Your task to perform on an android device: What's the US dollar exchange rate against the Canadian Dollar? Image 0: 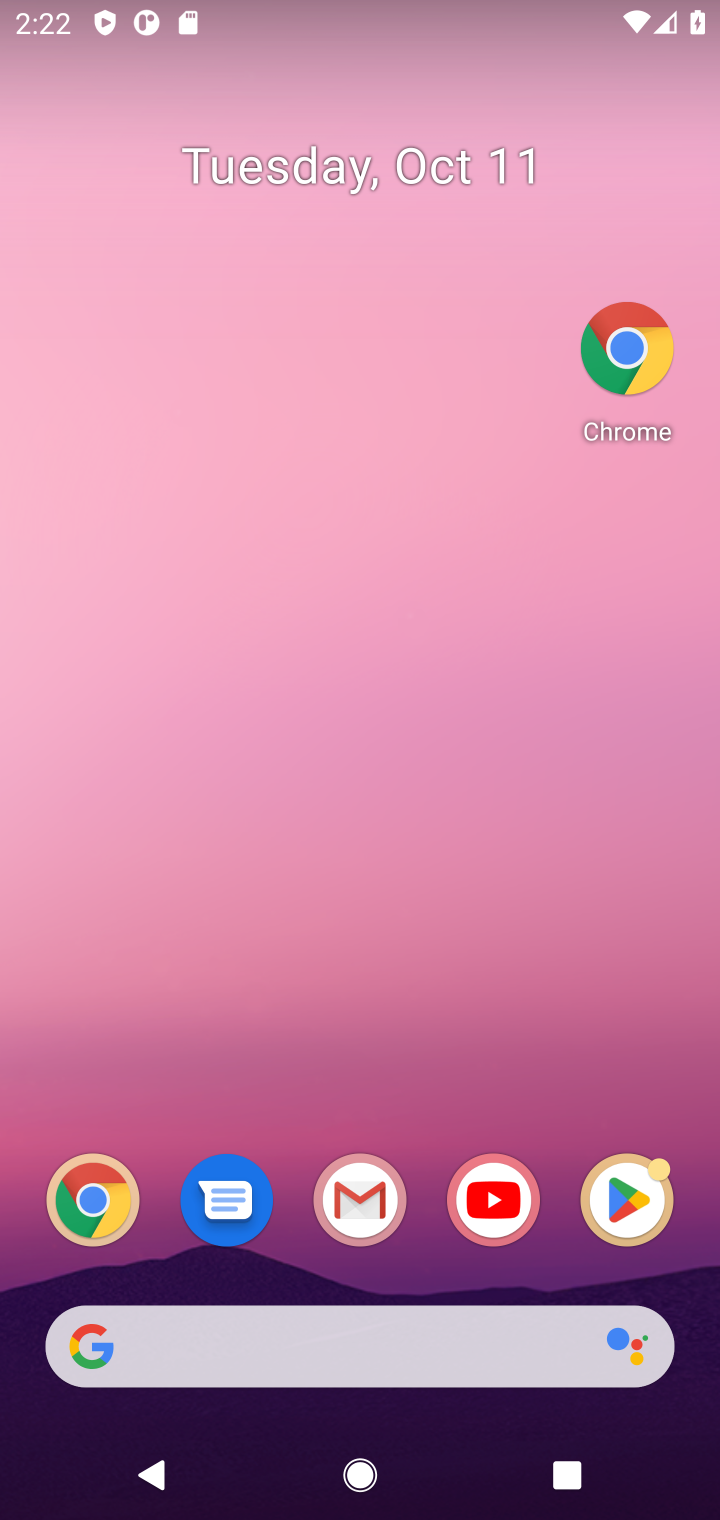
Step 0: drag from (355, 1223) to (415, 29)
Your task to perform on an android device: What's the US dollar exchange rate against the Canadian Dollar? Image 1: 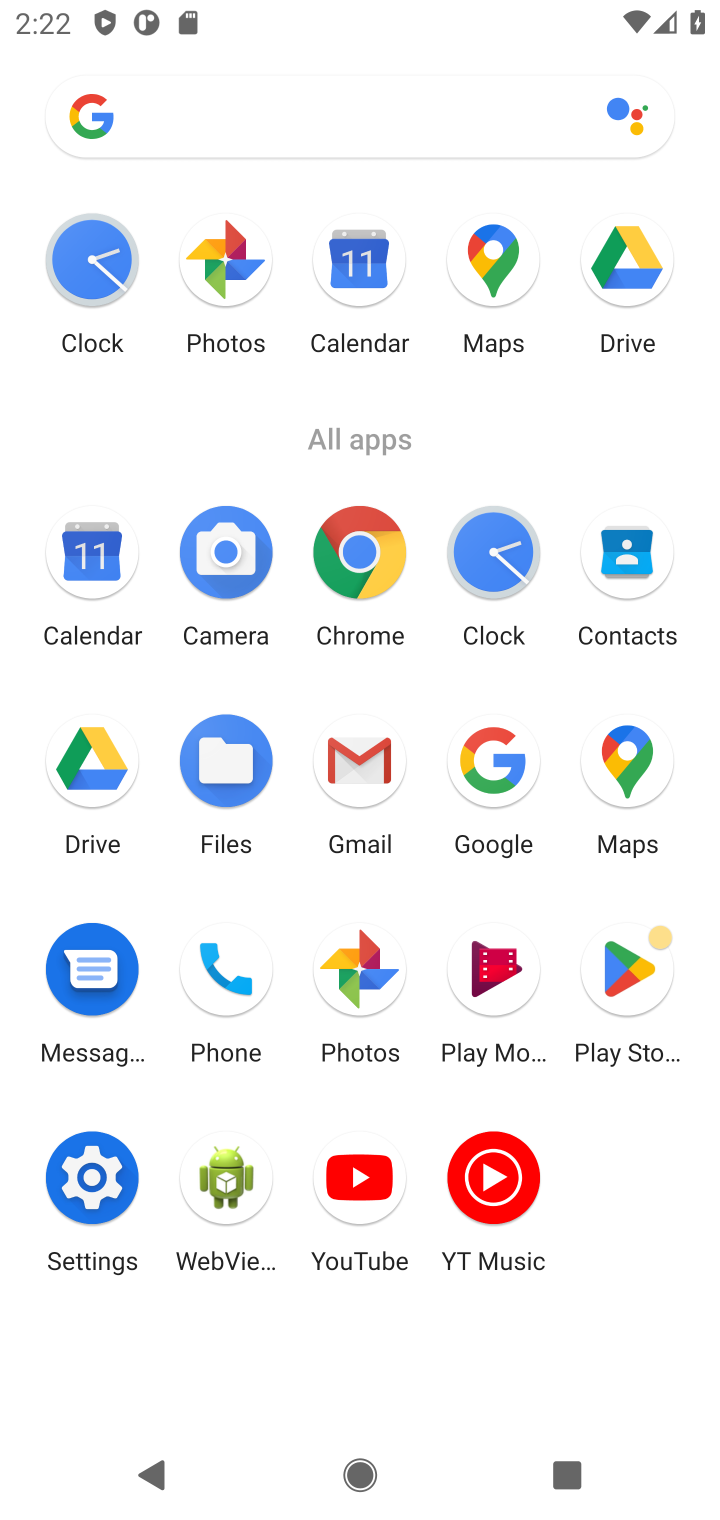
Step 1: click (359, 561)
Your task to perform on an android device: What's the US dollar exchange rate against the Canadian Dollar? Image 2: 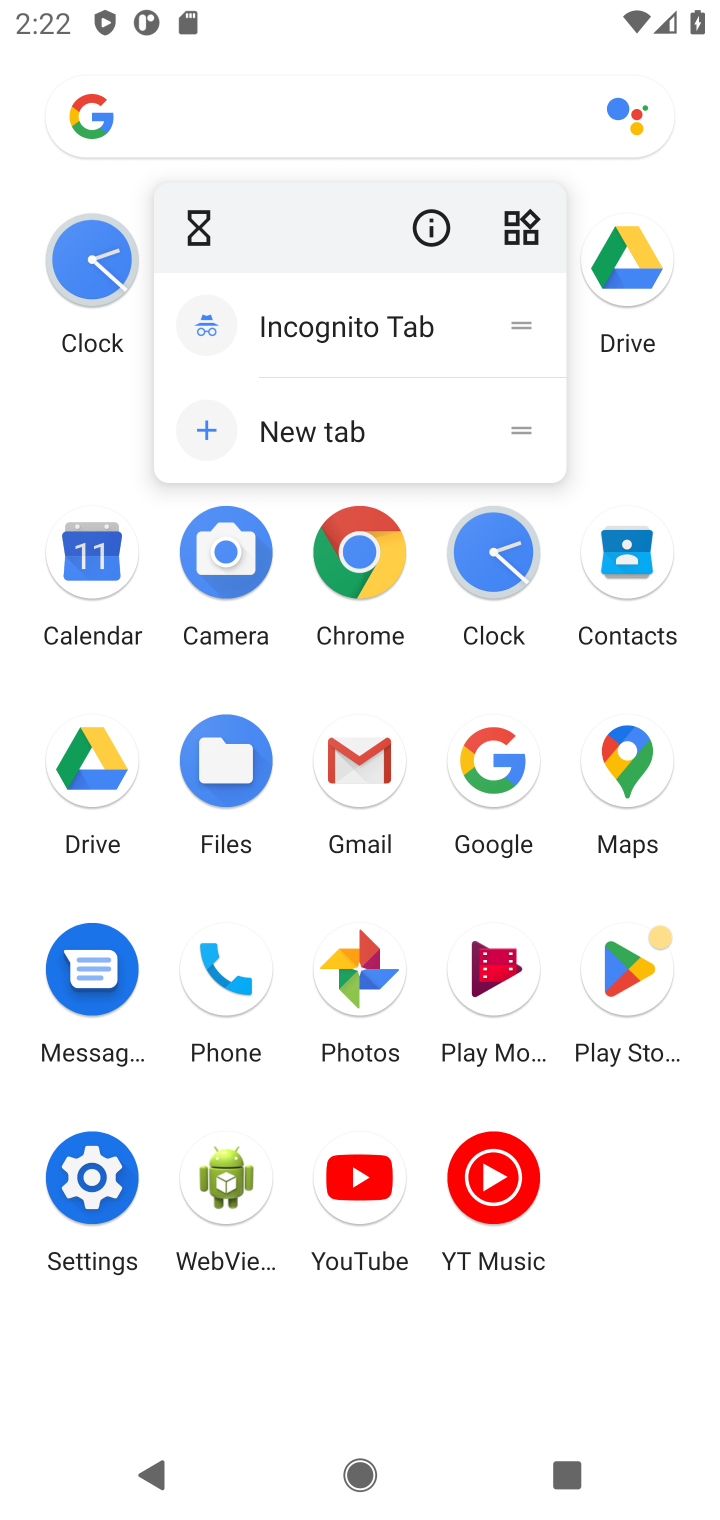
Step 2: click (359, 561)
Your task to perform on an android device: What's the US dollar exchange rate against the Canadian Dollar? Image 3: 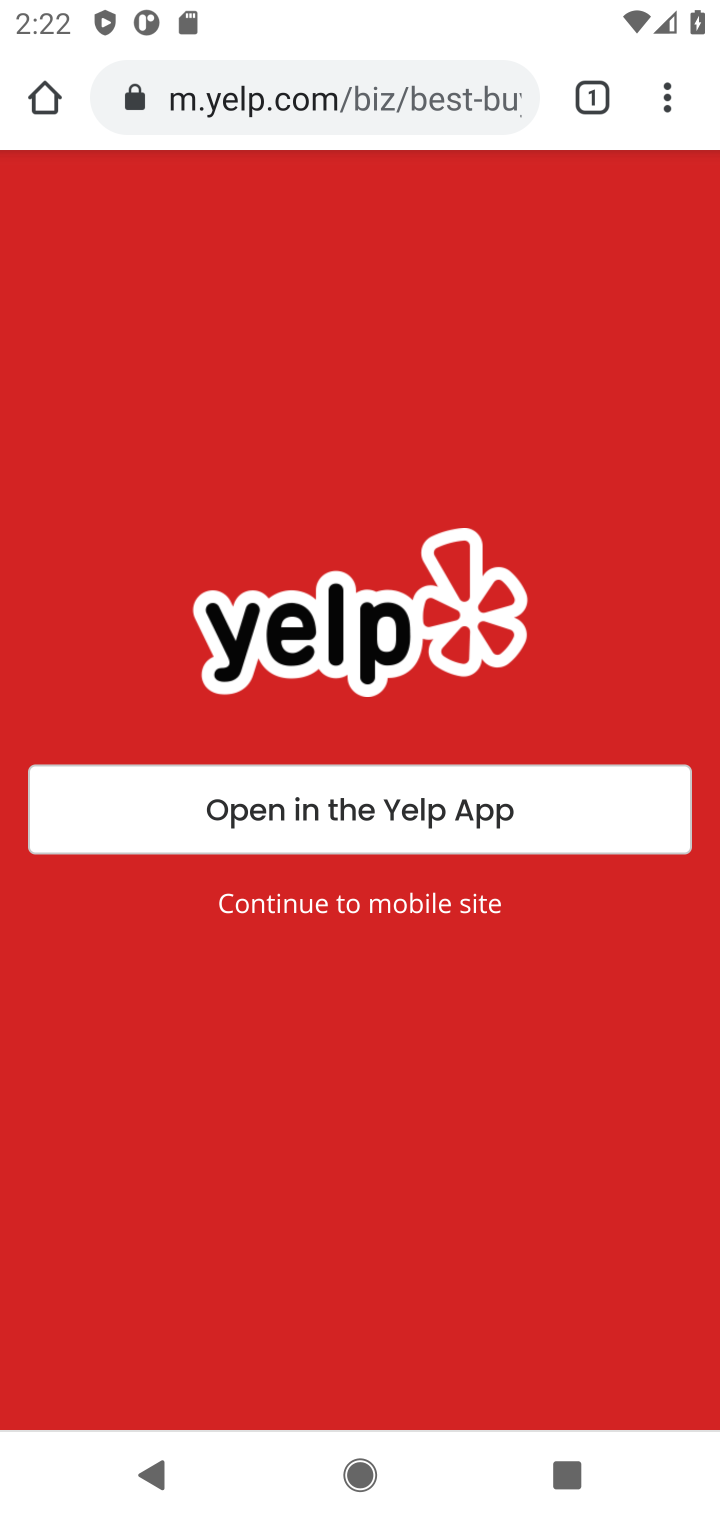
Step 3: click (350, 99)
Your task to perform on an android device: What's the US dollar exchange rate against the Canadian Dollar? Image 4: 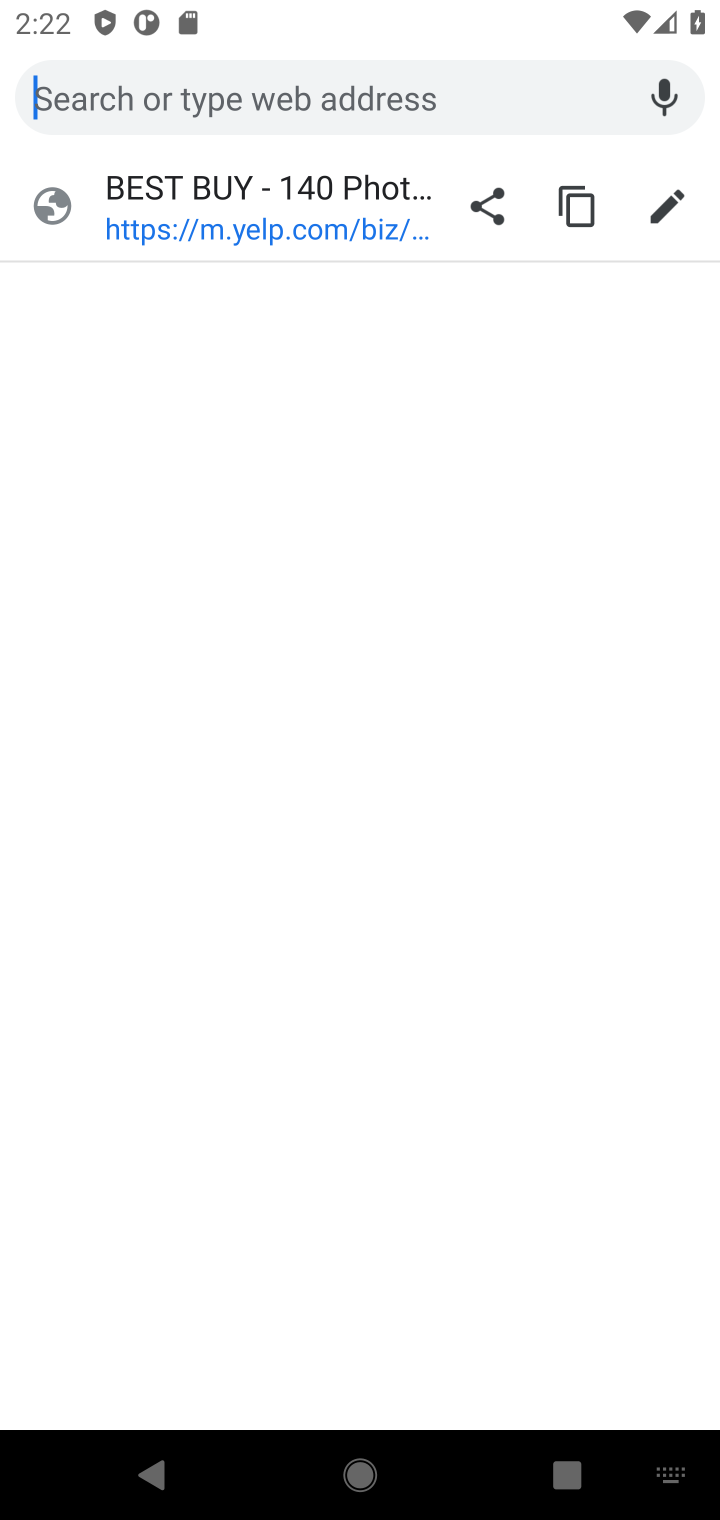
Step 4: type "What's the US dollar exchange rate against the Canadian Dollar?"
Your task to perform on an android device: What's the US dollar exchange rate against the Canadian Dollar? Image 5: 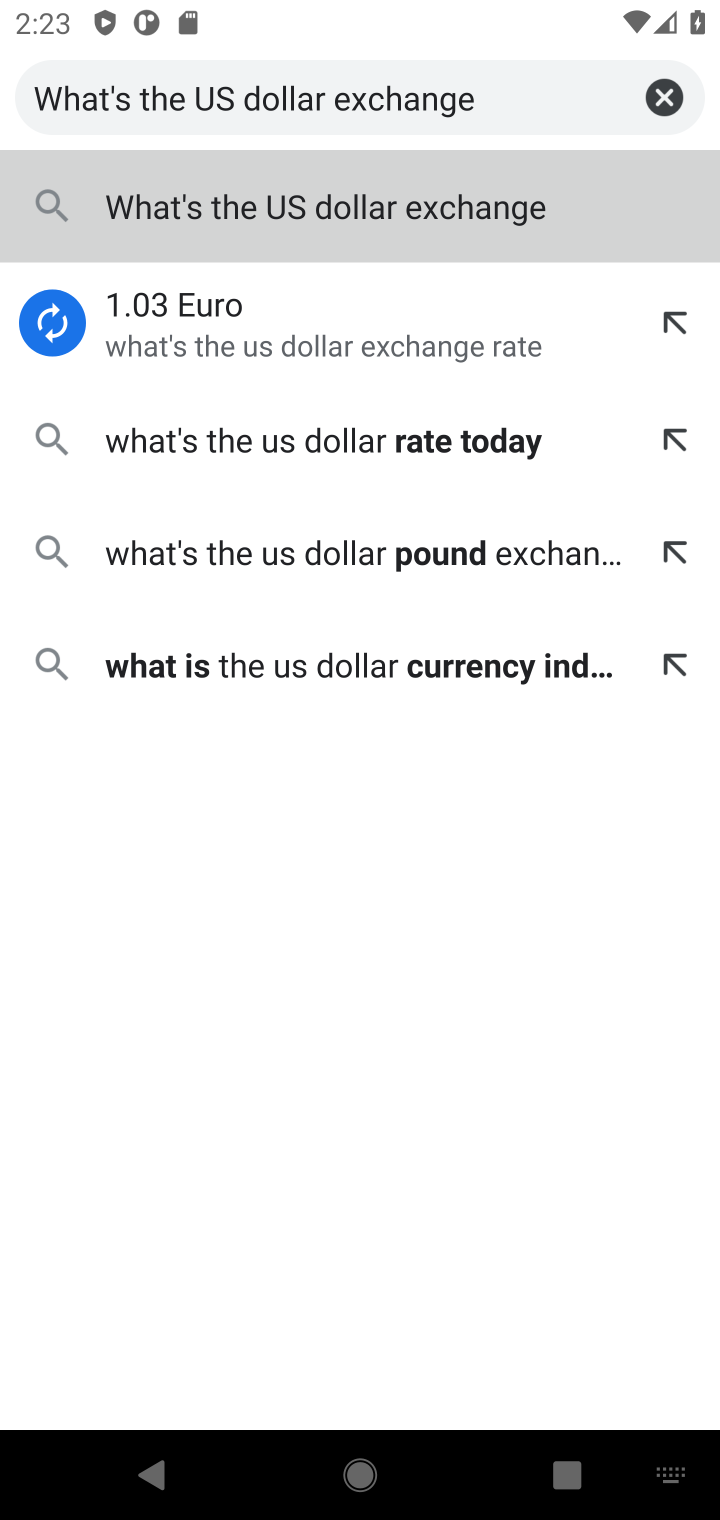
Step 5: click (657, 108)
Your task to perform on an android device: What's the US dollar exchange rate against the Canadian Dollar? Image 6: 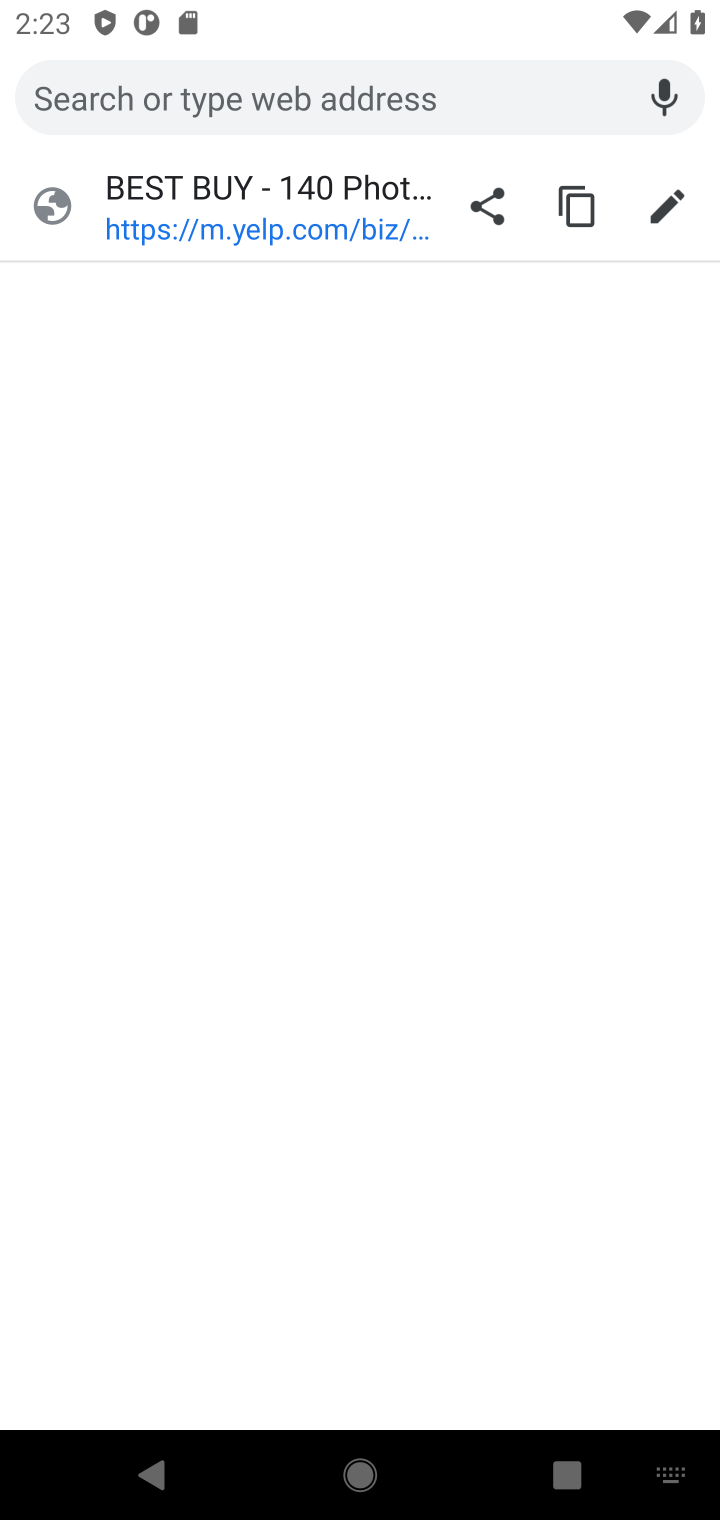
Step 6: type "What's the US dollar exchange rate against the Canadian Dollar?"
Your task to perform on an android device: What's the US dollar exchange rate against the Canadian Dollar? Image 7: 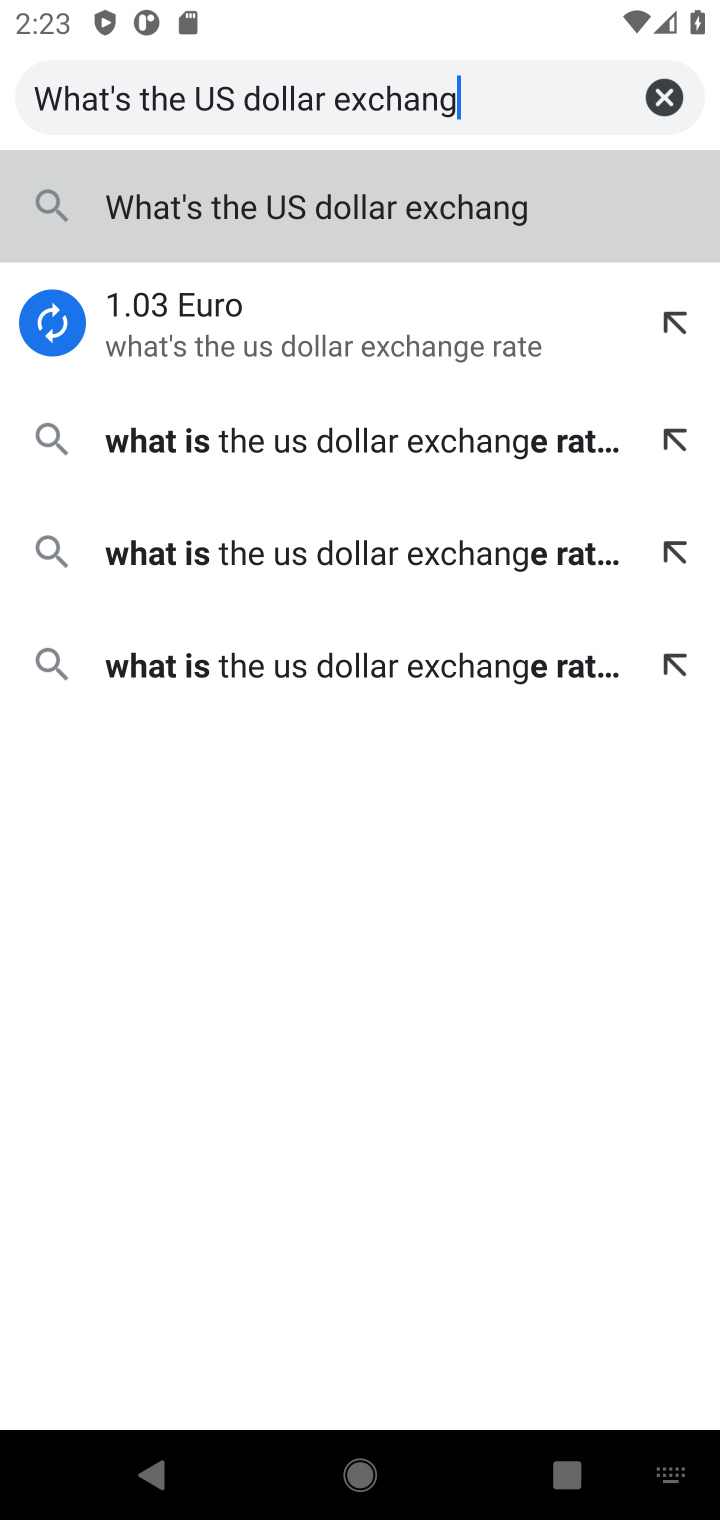
Step 7: click (649, 94)
Your task to perform on an android device: What's the US dollar exchange rate against the Canadian Dollar? Image 8: 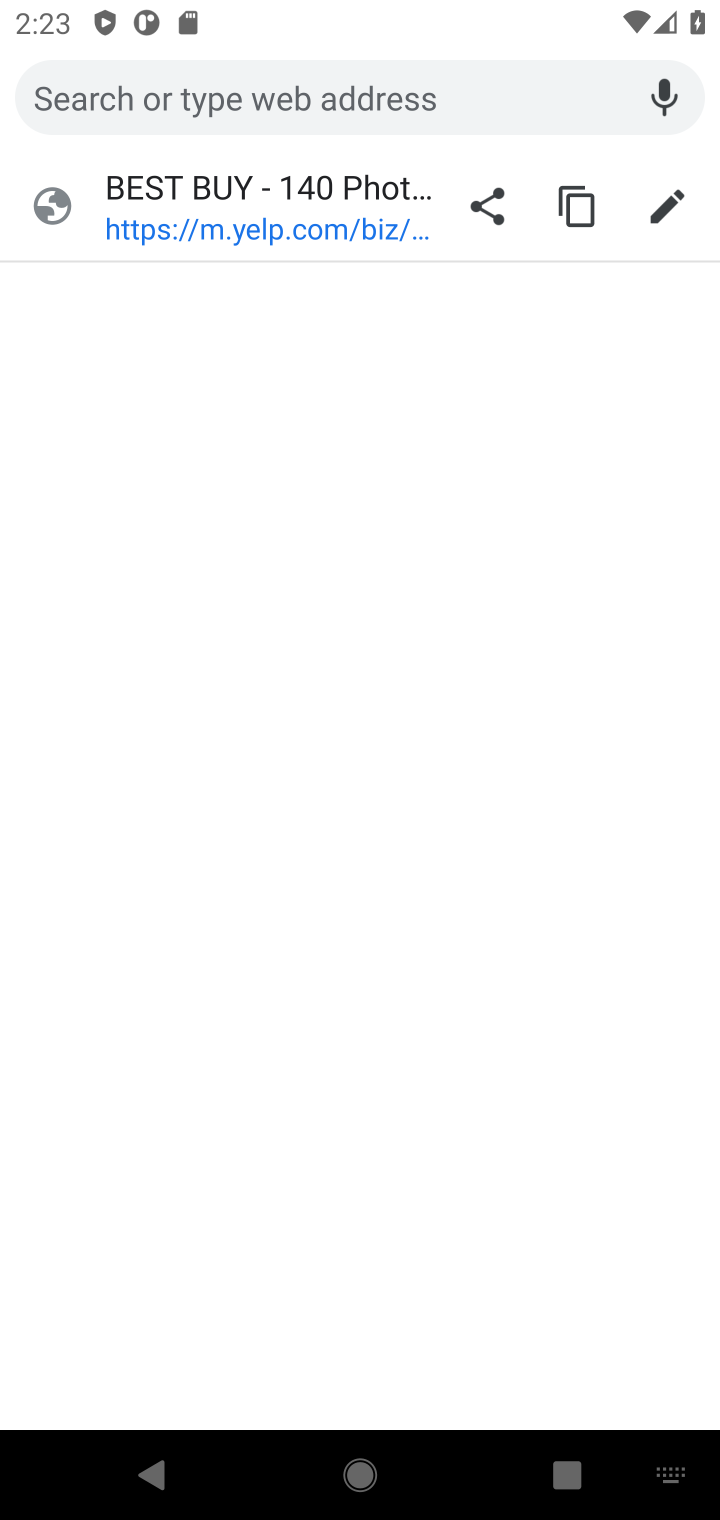
Step 8: type "What's the US dollar exchange rate against the Canadian Dollar?"
Your task to perform on an android device: What's the US dollar exchange rate against the Canadian Dollar? Image 9: 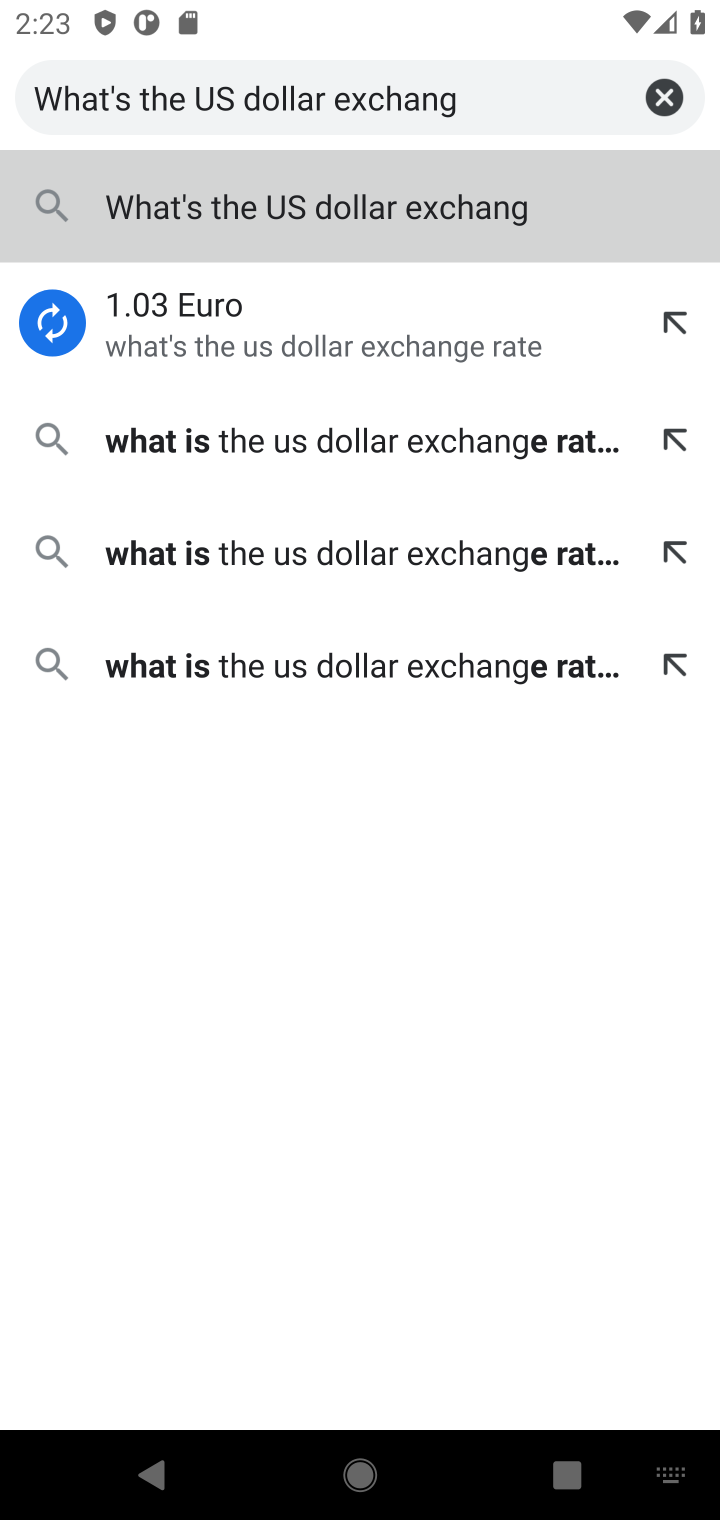
Step 9: type ""
Your task to perform on an android device: What's the US dollar exchange rate against the Canadian Dollar? Image 10: 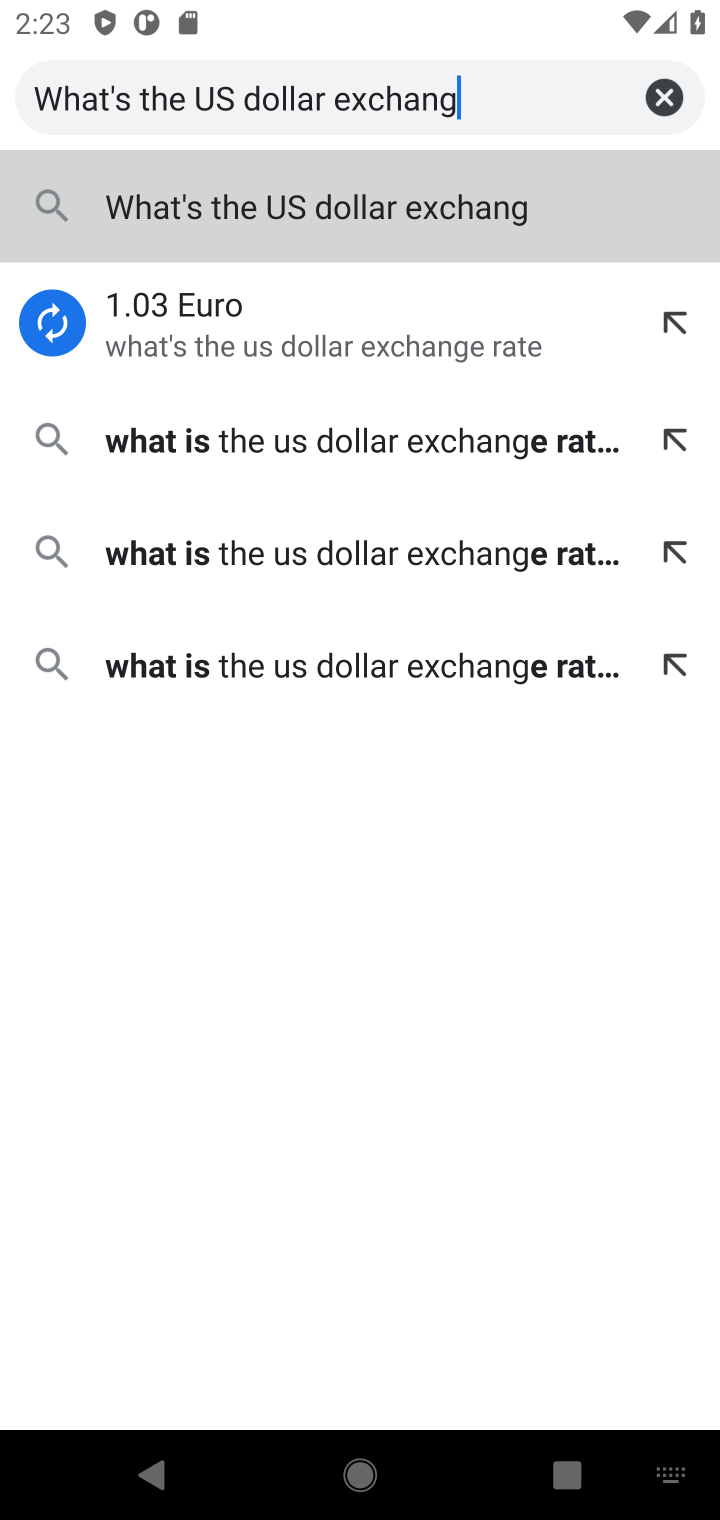
Step 10: press enter
Your task to perform on an android device: What's the US dollar exchange rate against the Canadian Dollar? Image 11: 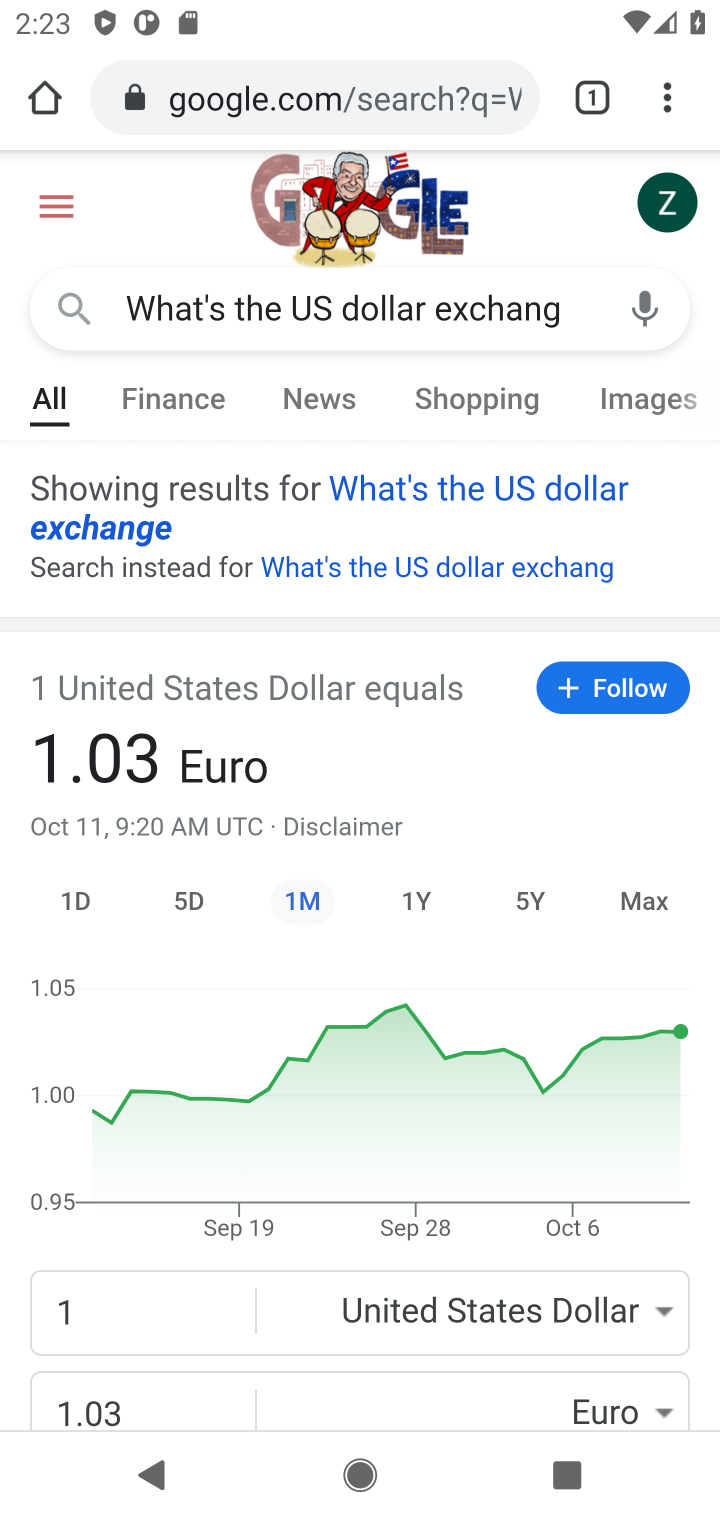
Step 11: drag from (550, 982) to (568, 178)
Your task to perform on an android device: What's the US dollar exchange rate against the Canadian Dollar? Image 12: 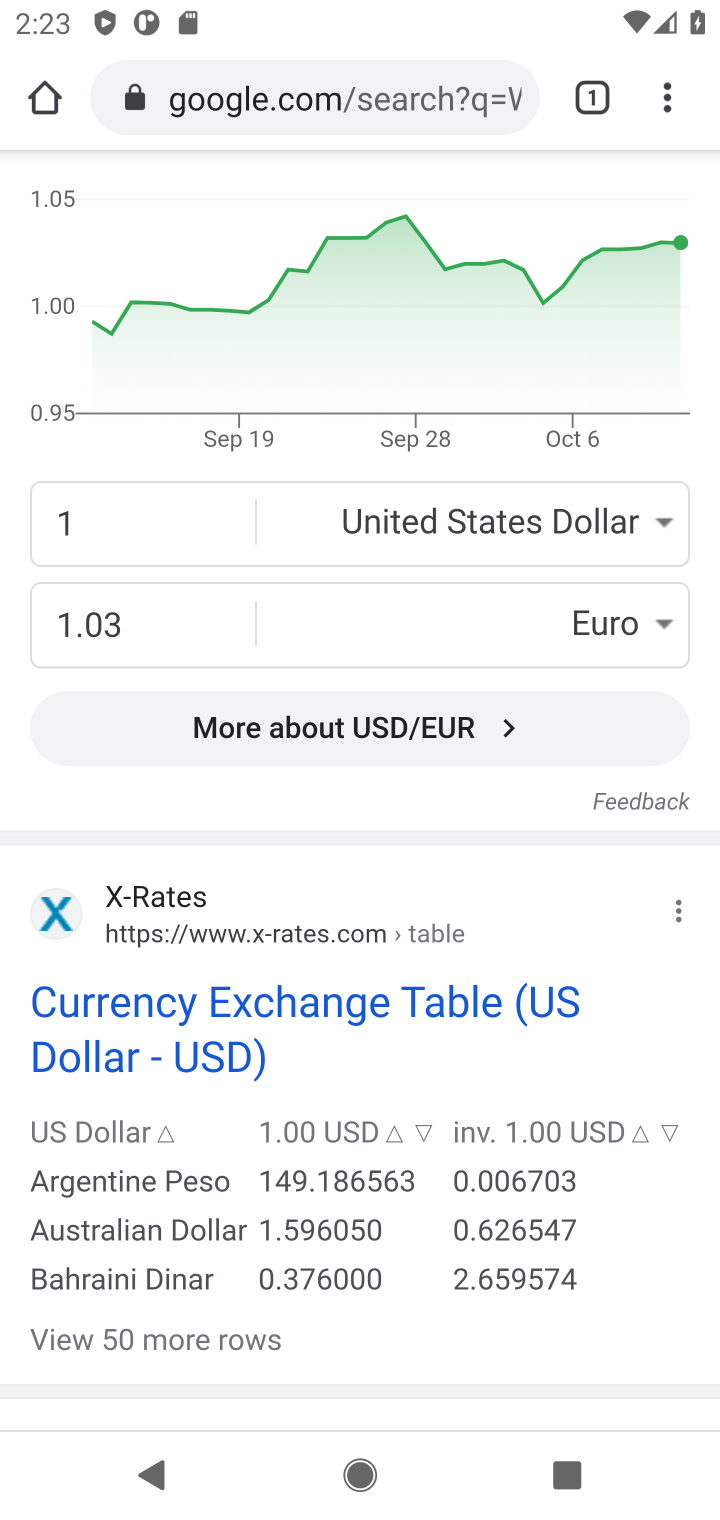
Step 12: click (508, 518)
Your task to perform on an android device: What's the US dollar exchange rate against the Canadian Dollar? Image 13: 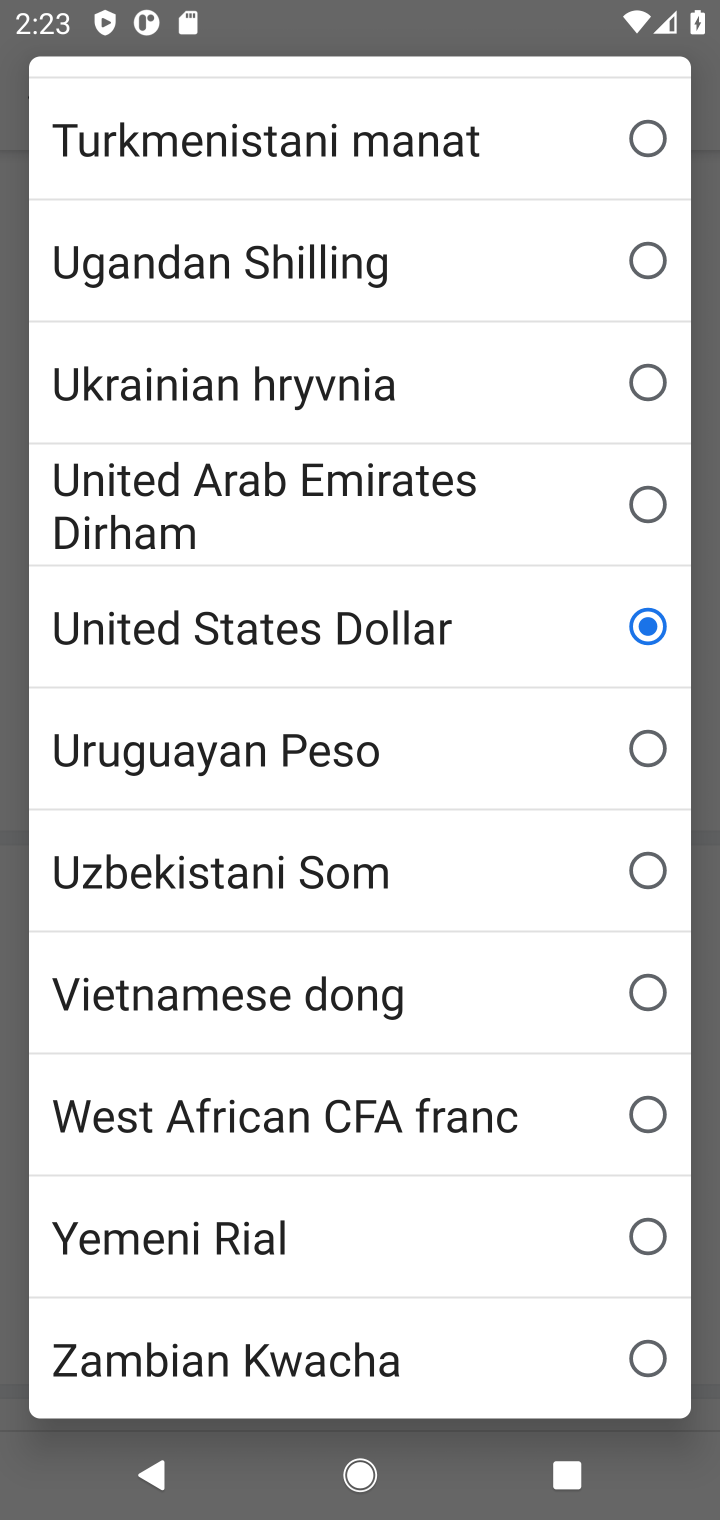
Step 13: click (565, 614)
Your task to perform on an android device: What's the US dollar exchange rate against the Canadian Dollar? Image 14: 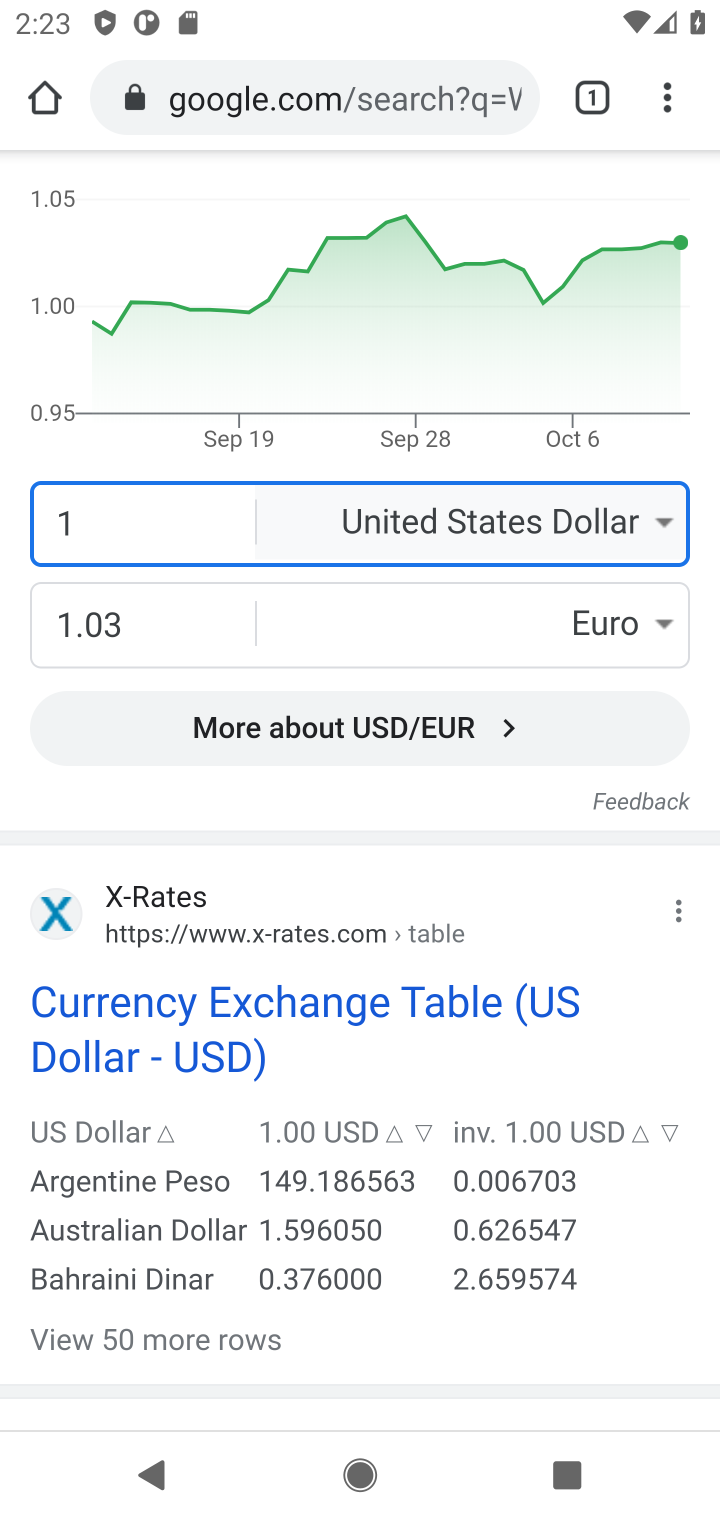
Step 14: click (580, 642)
Your task to perform on an android device: What's the US dollar exchange rate against the Canadian Dollar? Image 15: 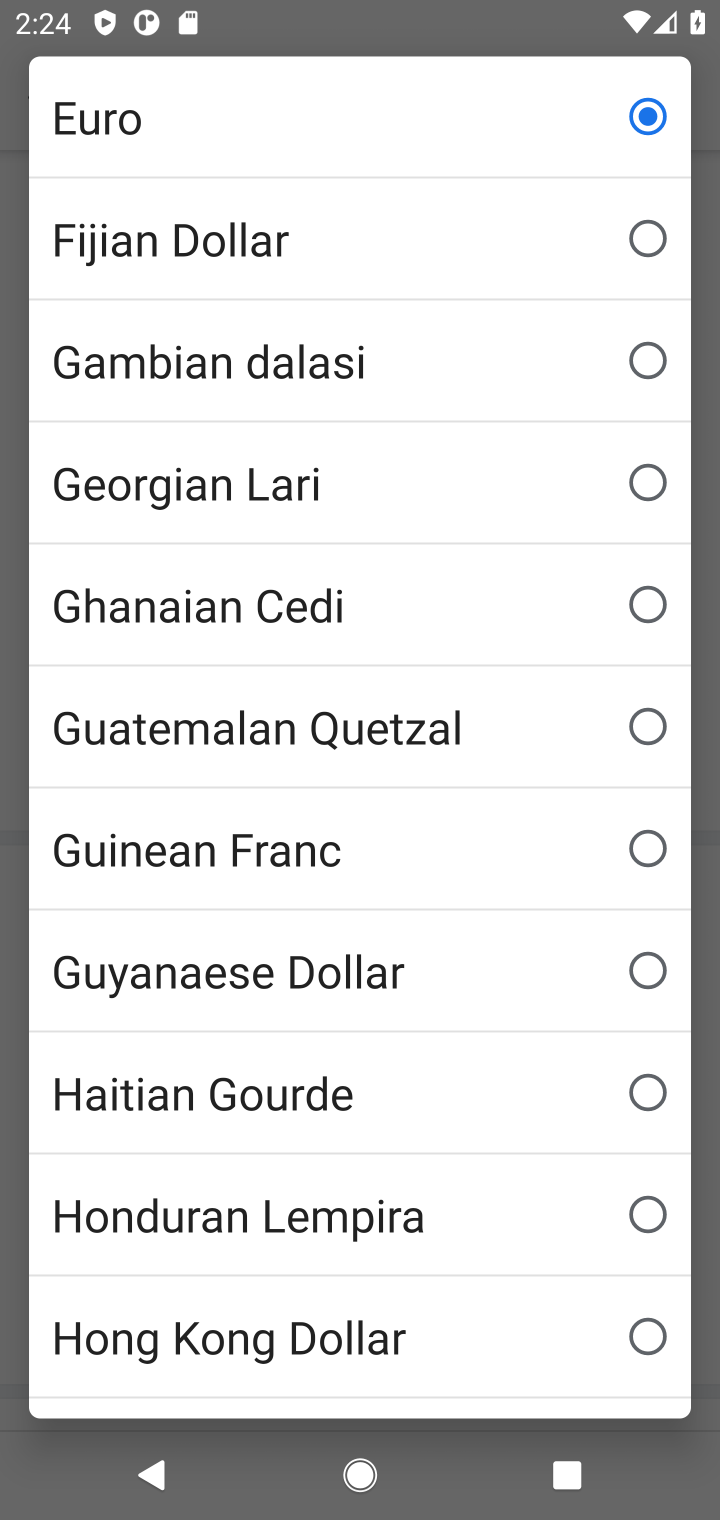
Step 15: drag from (448, 1301) to (534, 1444)
Your task to perform on an android device: What's the US dollar exchange rate against the Canadian Dollar? Image 16: 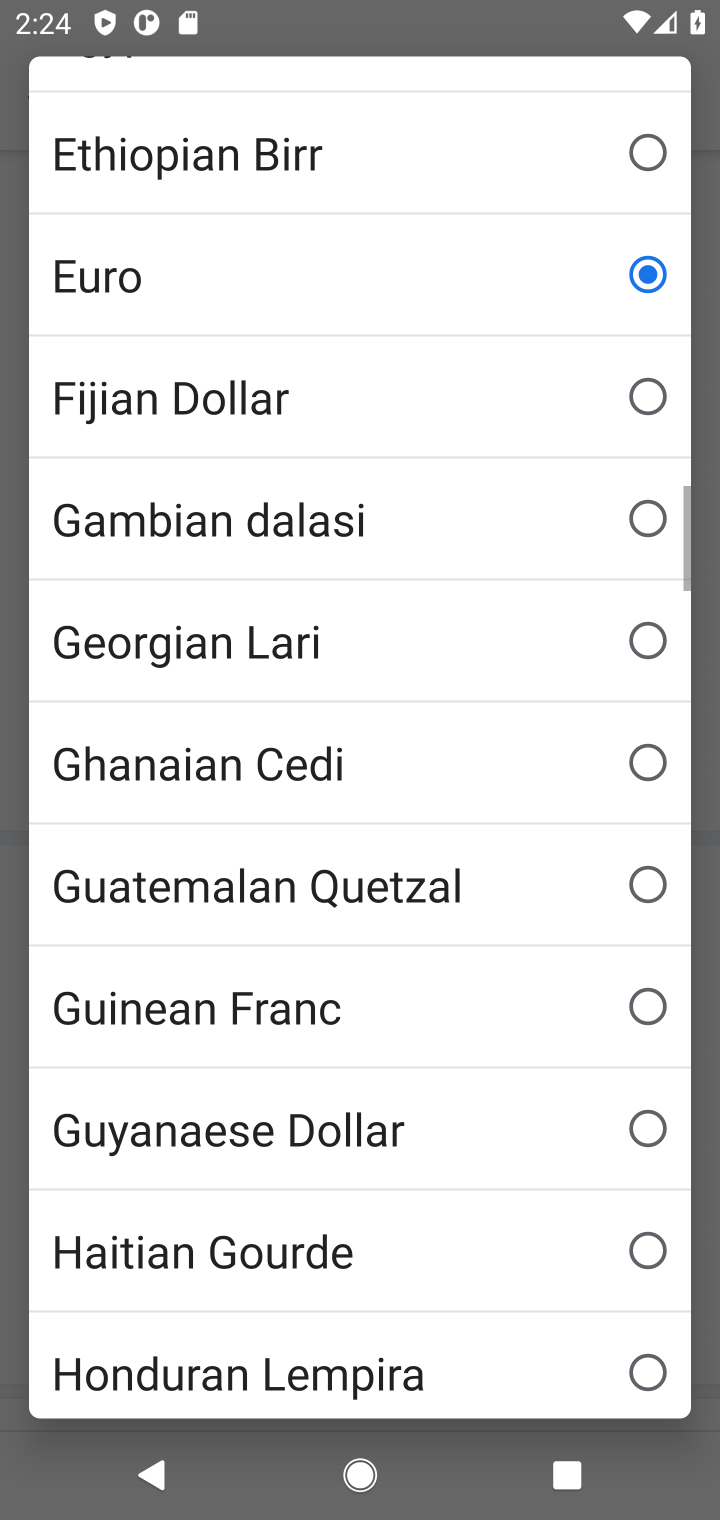
Step 16: drag from (454, 548) to (508, 1176)
Your task to perform on an android device: What's the US dollar exchange rate against the Canadian Dollar? Image 17: 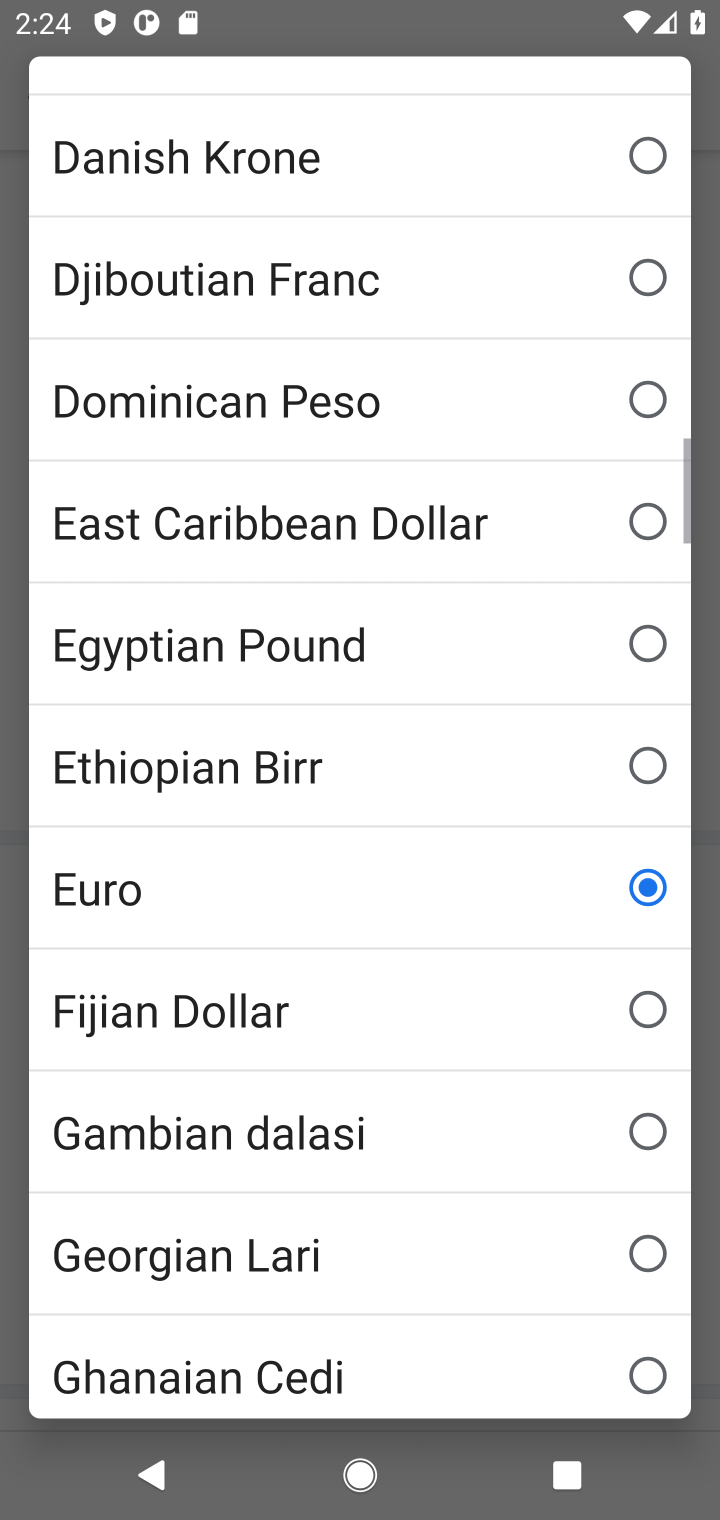
Step 17: drag from (374, 926) to (388, 1210)
Your task to perform on an android device: What's the US dollar exchange rate against the Canadian Dollar? Image 18: 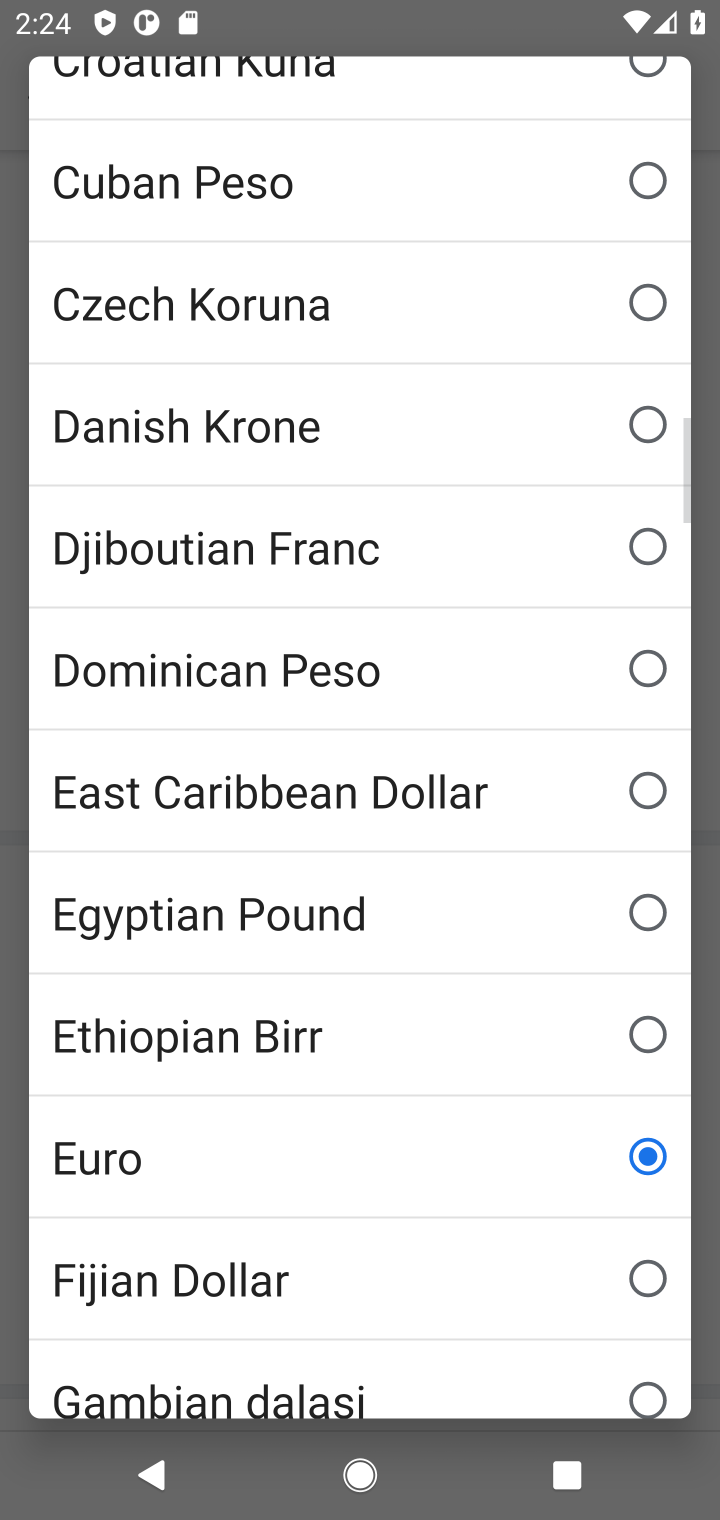
Step 18: drag from (364, 281) to (427, 1202)
Your task to perform on an android device: What's the US dollar exchange rate against the Canadian Dollar? Image 19: 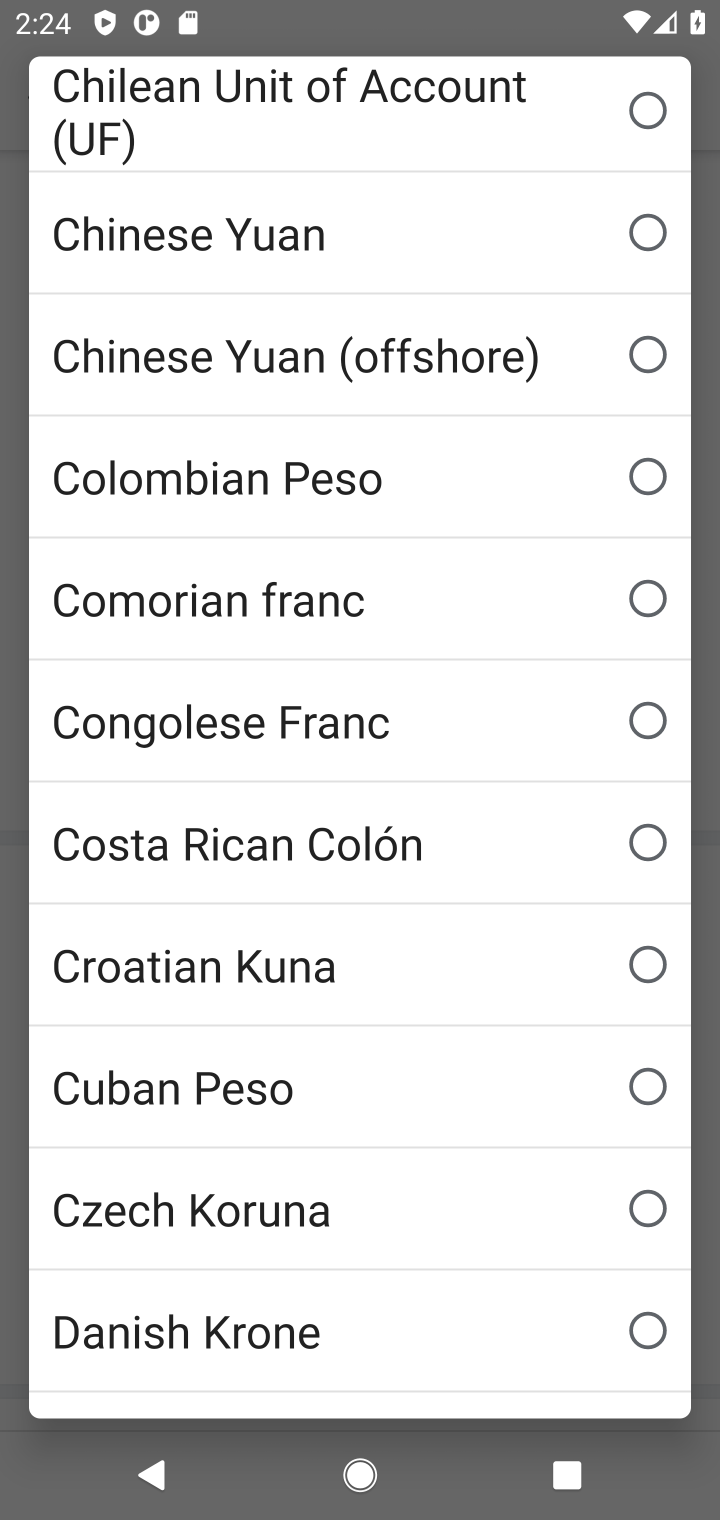
Step 19: drag from (422, 162) to (449, 1115)
Your task to perform on an android device: What's the US dollar exchange rate against the Canadian Dollar? Image 20: 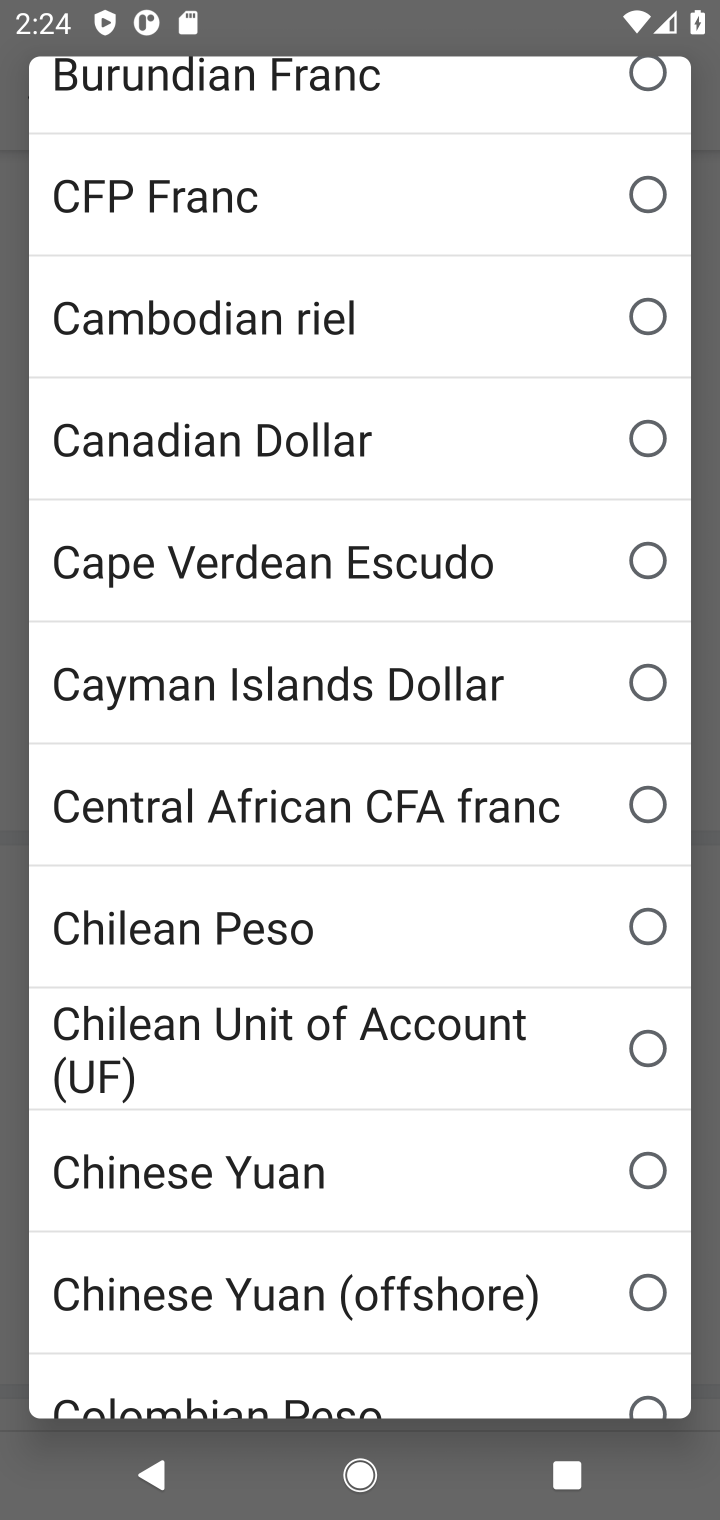
Step 20: click (423, 413)
Your task to perform on an android device: What's the US dollar exchange rate against the Canadian Dollar? Image 21: 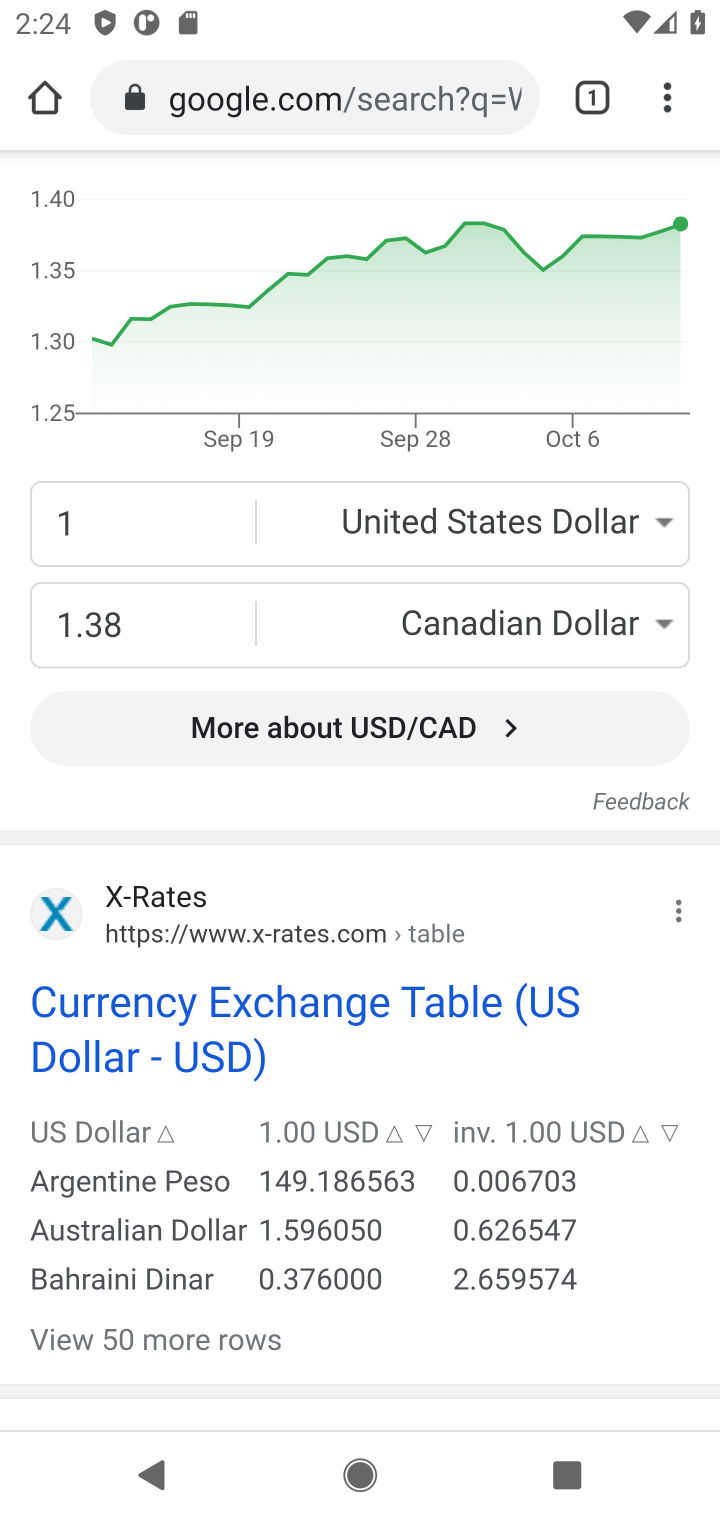
Step 21: task complete